Your task to perform on an android device: Go to privacy settings Image 0: 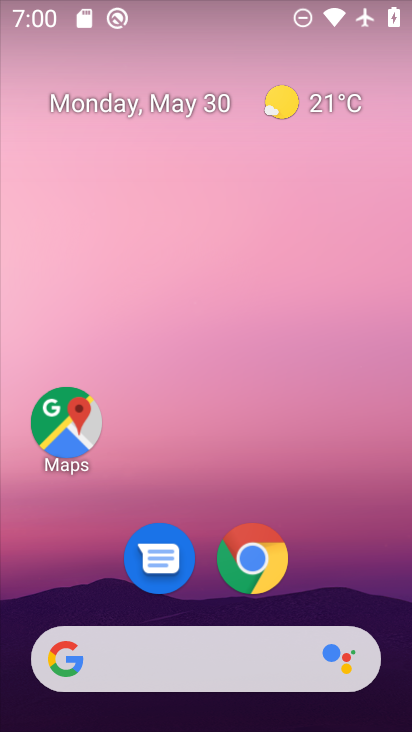
Step 0: drag from (344, 488) to (256, 193)
Your task to perform on an android device: Go to privacy settings Image 1: 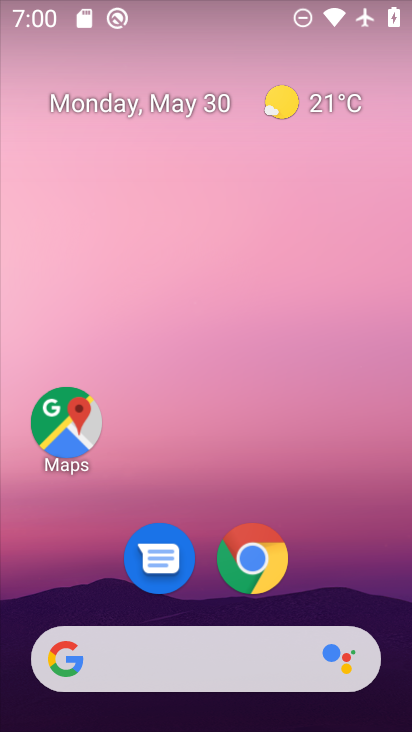
Step 1: drag from (196, 476) to (160, 41)
Your task to perform on an android device: Go to privacy settings Image 2: 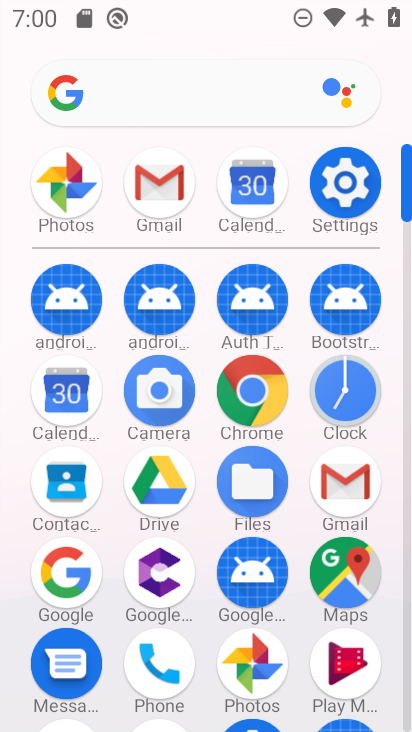
Step 2: click (345, 182)
Your task to perform on an android device: Go to privacy settings Image 3: 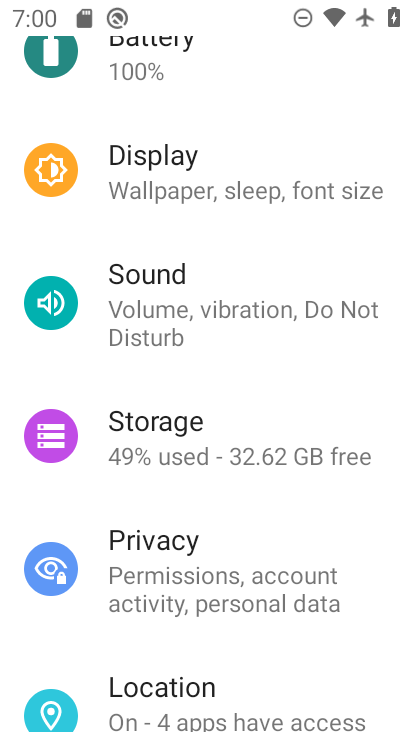
Step 3: click (165, 539)
Your task to perform on an android device: Go to privacy settings Image 4: 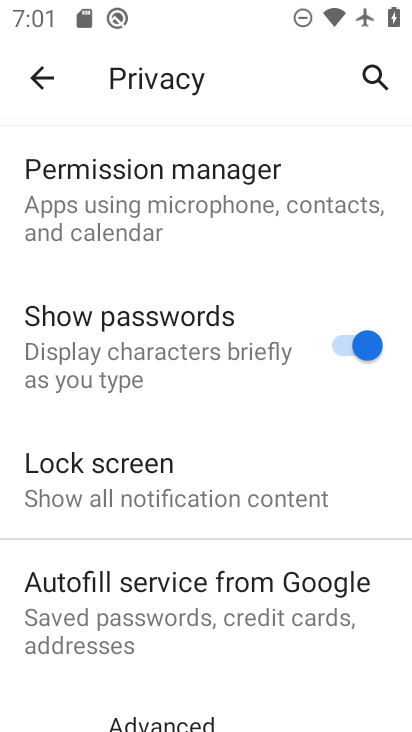
Step 4: task complete